Your task to perform on an android device: Open wifi settings Image 0: 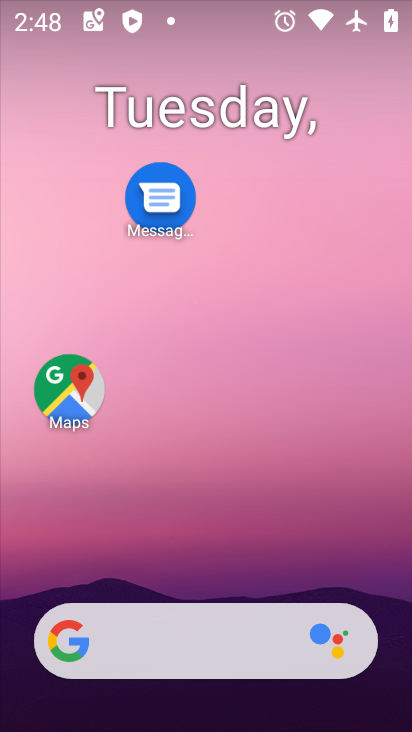
Step 0: drag from (202, 546) to (202, 181)
Your task to perform on an android device: Open wifi settings Image 1: 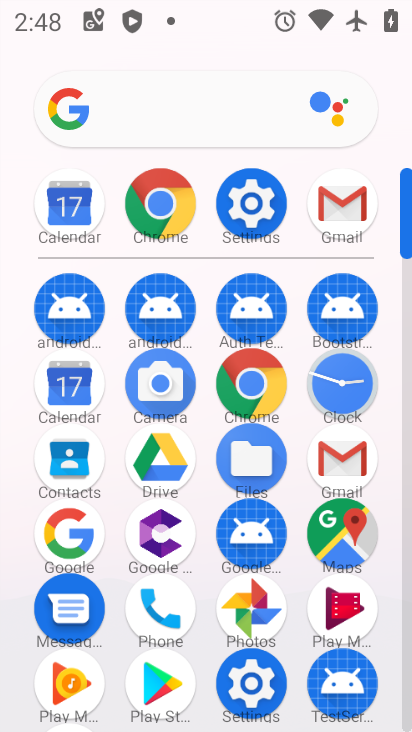
Step 1: click (260, 193)
Your task to perform on an android device: Open wifi settings Image 2: 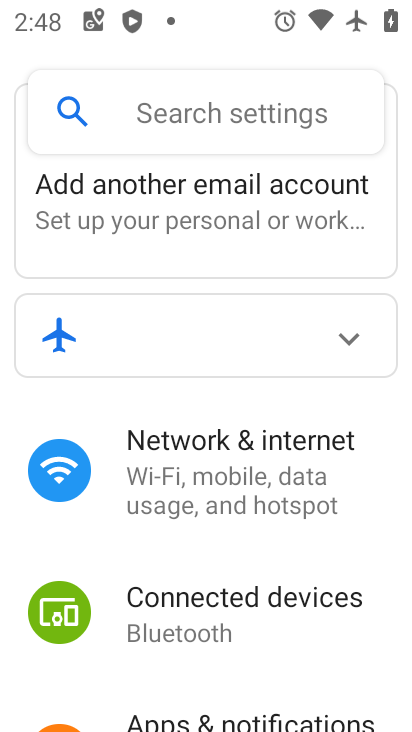
Step 2: click (198, 472)
Your task to perform on an android device: Open wifi settings Image 3: 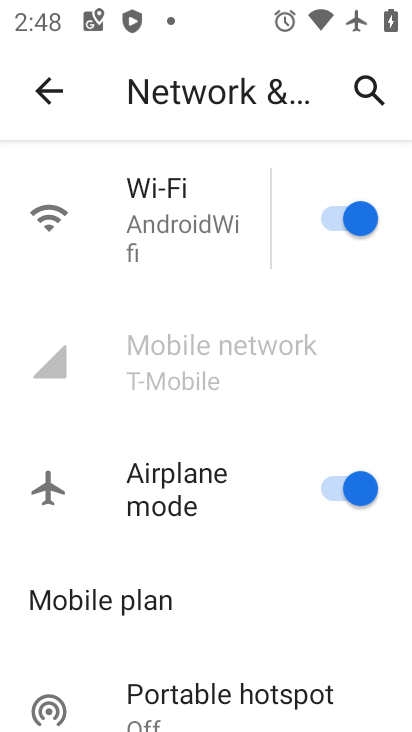
Step 3: click (177, 219)
Your task to perform on an android device: Open wifi settings Image 4: 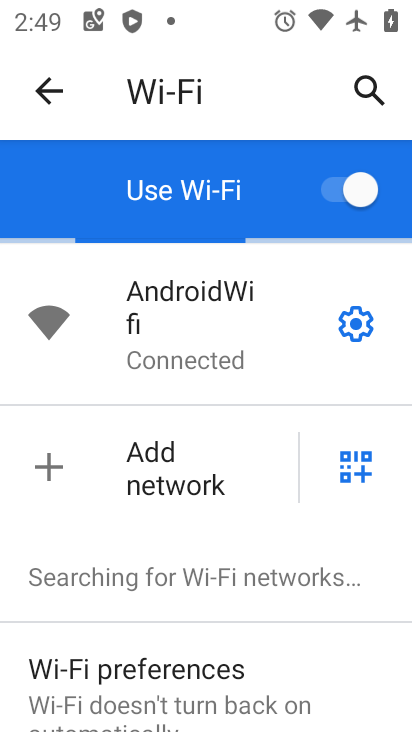
Step 4: task complete